Your task to perform on an android device: open chrome privacy settings Image 0: 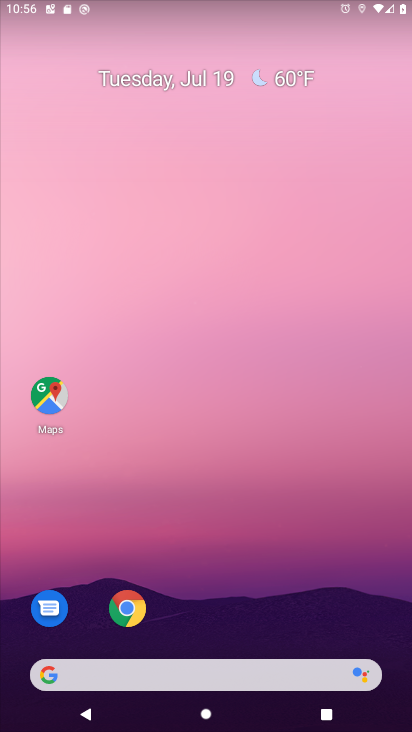
Step 0: click (105, 625)
Your task to perform on an android device: open chrome privacy settings Image 1: 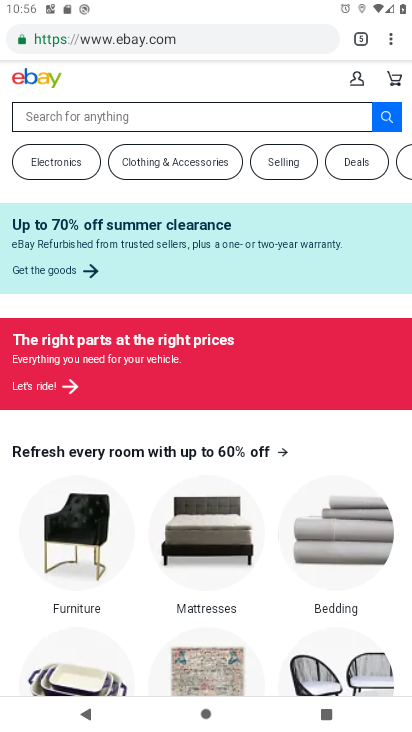
Step 1: click (388, 40)
Your task to perform on an android device: open chrome privacy settings Image 2: 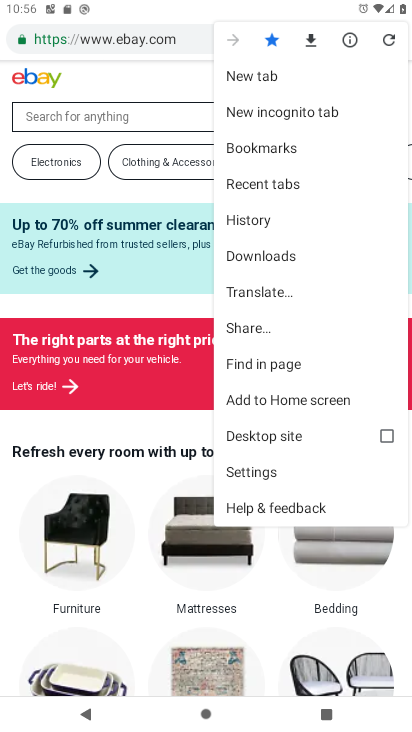
Step 2: click (252, 474)
Your task to perform on an android device: open chrome privacy settings Image 3: 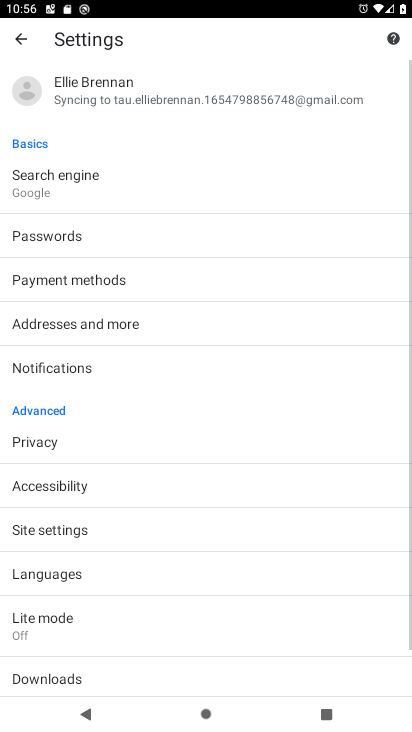
Step 3: click (33, 434)
Your task to perform on an android device: open chrome privacy settings Image 4: 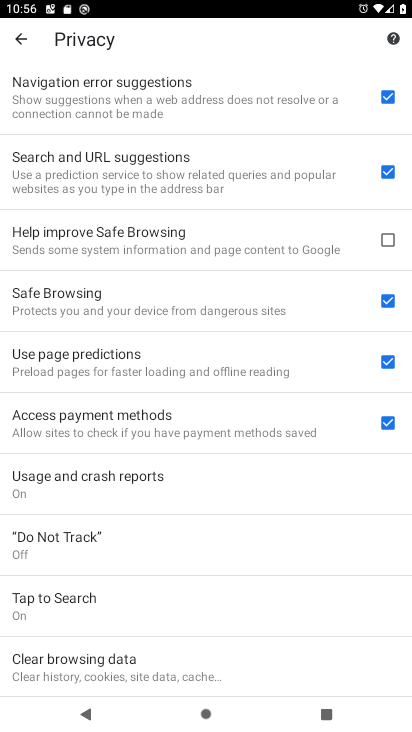
Step 4: task complete